Your task to perform on an android device: Open sound settings Image 0: 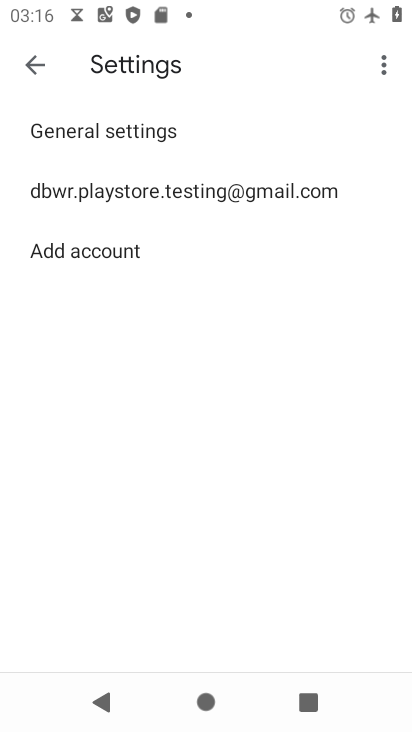
Step 0: press back button
Your task to perform on an android device: Open sound settings Image 1: 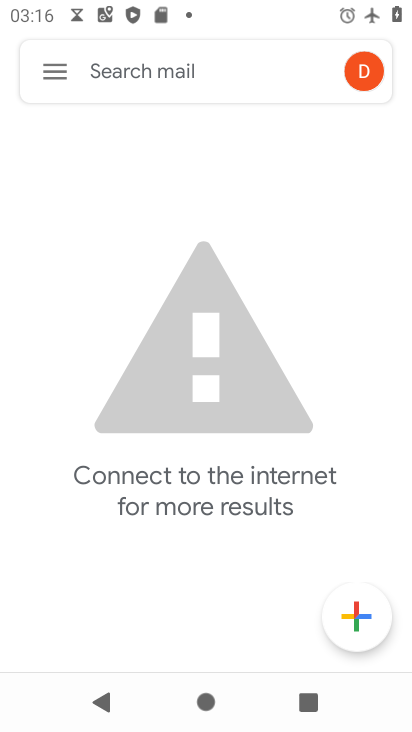
Step 1: press back button
Your task to perform on an android device: Open sound settings Image 2: 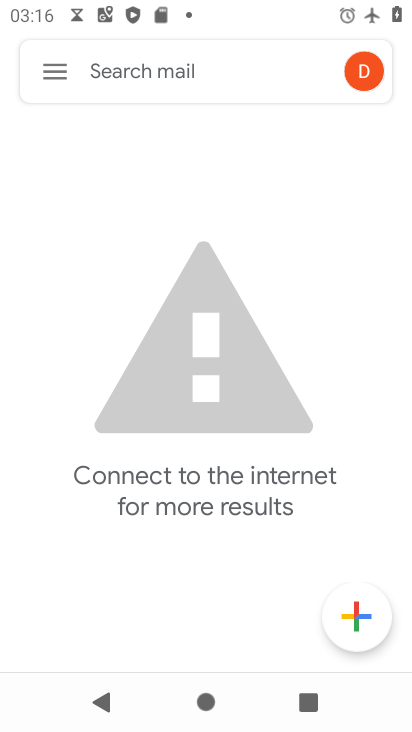
Step 2: press back button
Your task to perform on an android device: Open sound settings Image 3: 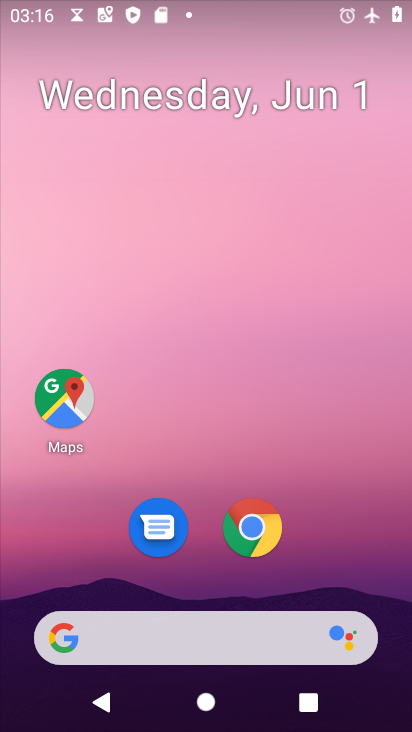
Step 3: press back button
Your task to perform on an android device: Open sound settings Image 4: 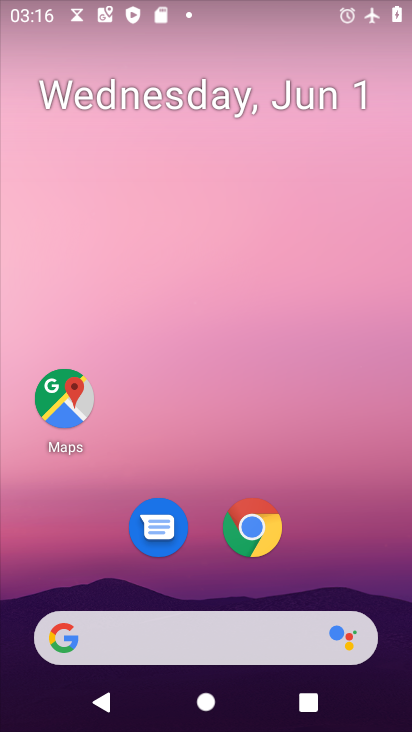
Step 4: drag from (324, 580) to (275, 135)
Your task to perform on an android device: Open sound settings Image 5: 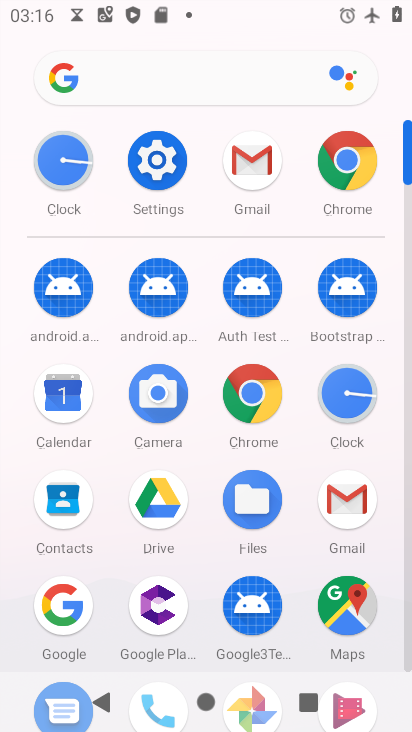
Step 5: click (156, 159)
Your task to perform on an android device: Open sound settings Image 6: 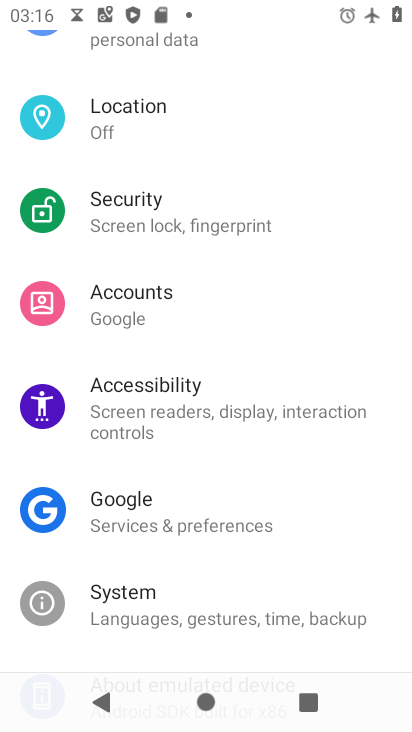
Step 6: drag from (213, 282) to (246, 372)
Your task to perform on an android device: Open sound settings Image 7: 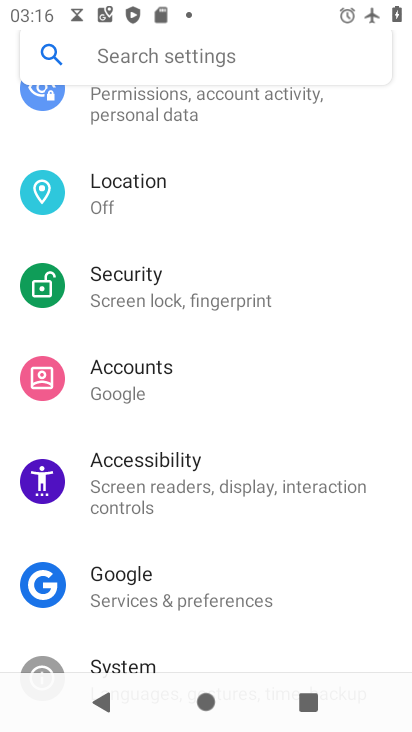
Step 7: drag from (235, 245) to (249, 333)
Your task to perform on an android device: Open sound settings Image 8: 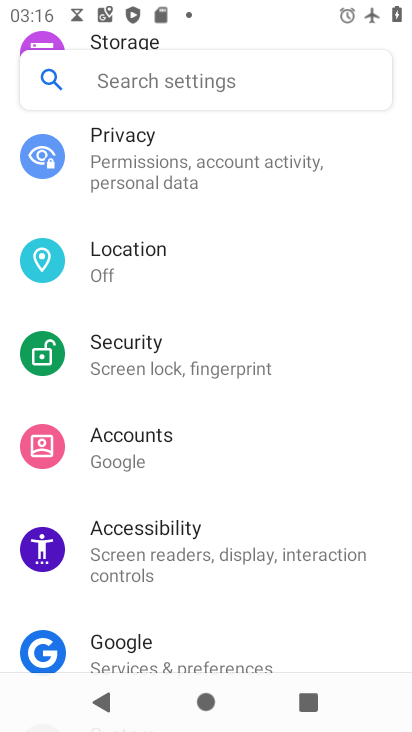
Step 8: drag from (188, 239) to (213, 331)
Your task to perform on an android device: Open sound settings Image 9: 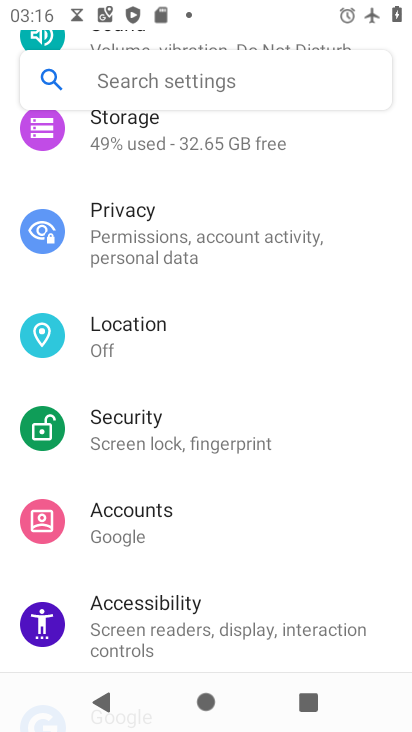
Step 9: drag from (184, 195) to (210, 289)
Your task to perform on an android device: Open sound settings Image 10: 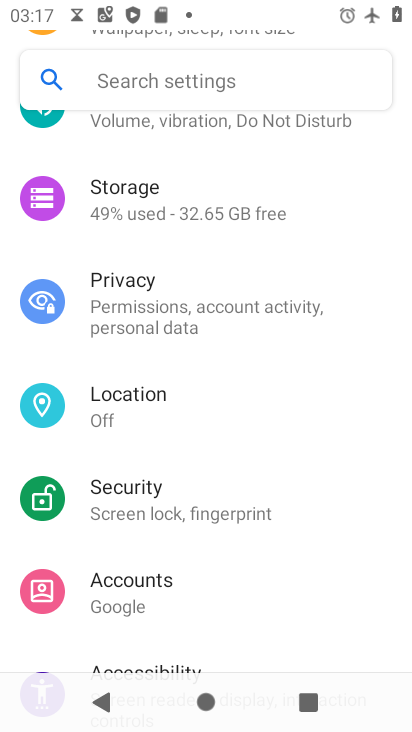
Step 10: drag from (185, 247) to (195, 313)
Your task to perform on an android device: Open sound settings Image 11: 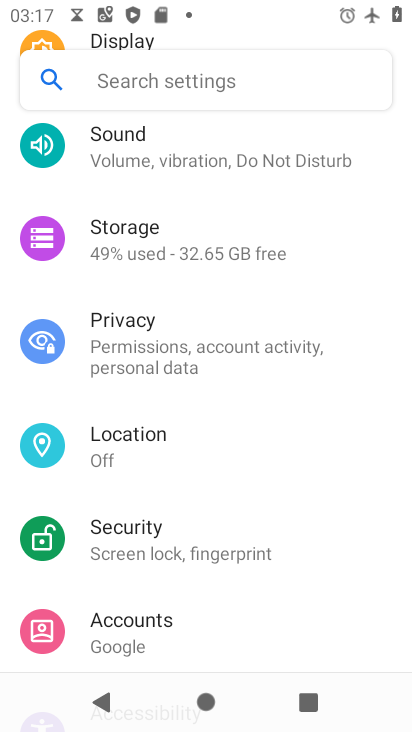
Step 11: drag from (180, 206) to (210, 286)
Your task to perform on an android device: Open sound settings Image 12: 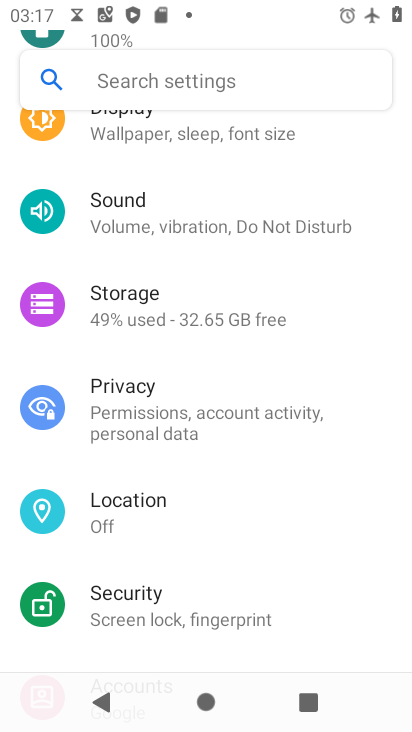
Step 12: click (158, 222)
Your task to perform on an android device: Open sound settings Image 13: 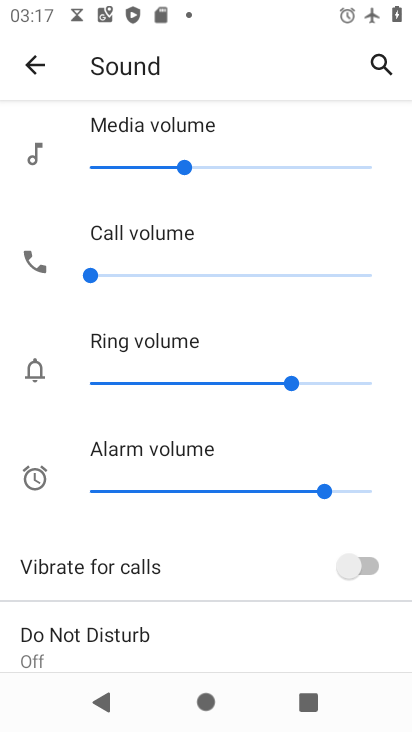
Step 13: task complete